Your task to perform on an android device: Go to Google maps Image 0: 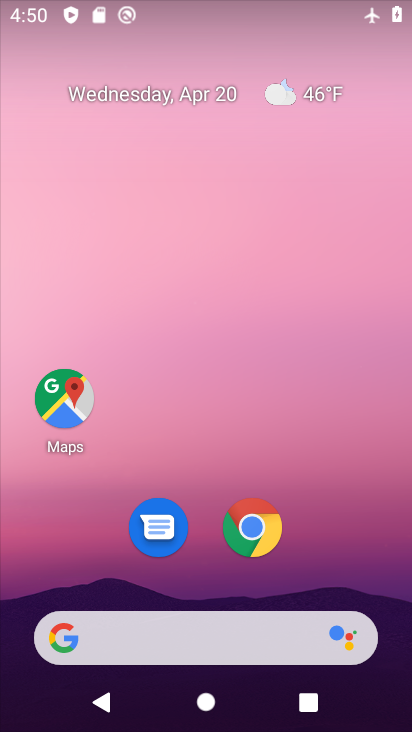
Step 0: click (65, 392)
Your task to perform on an android device: Go to Google maps Image 1: 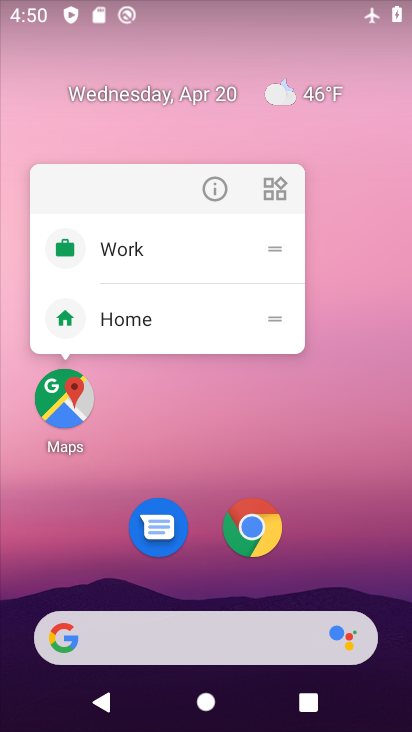
Step 1: click (214, 198)
Your task to perform on an android device: Go to Google maps Image 2: 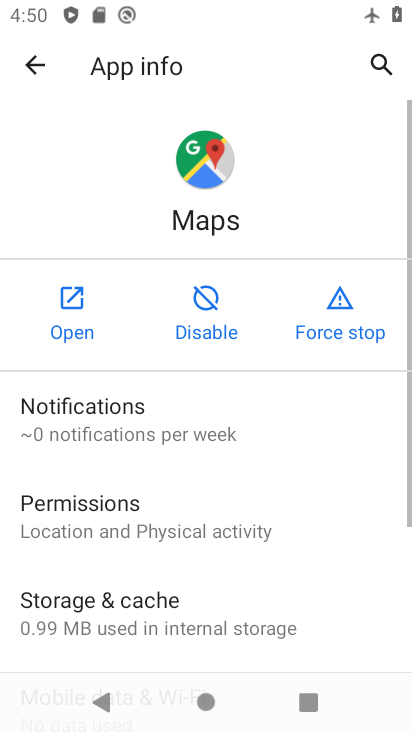
Step 2: click (63, 300)
Your task to perform on an android device: Go to Google maps Image 3: 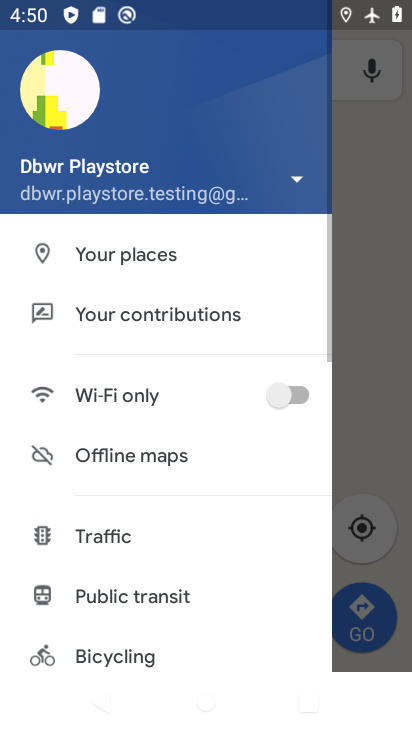
Step 3: task complete